Your task to perform on an android device: What's on my calendar today? Image 0: 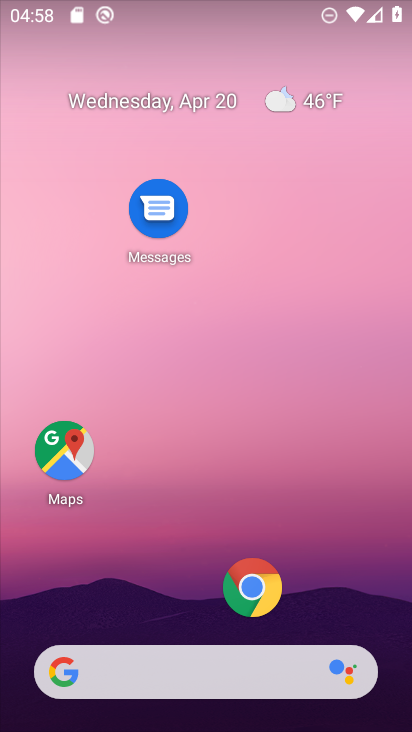
Step 0: drag from (196, 615) to (212, 125)
Your task to perform on an android device: What's on my calendar today? Image 1: 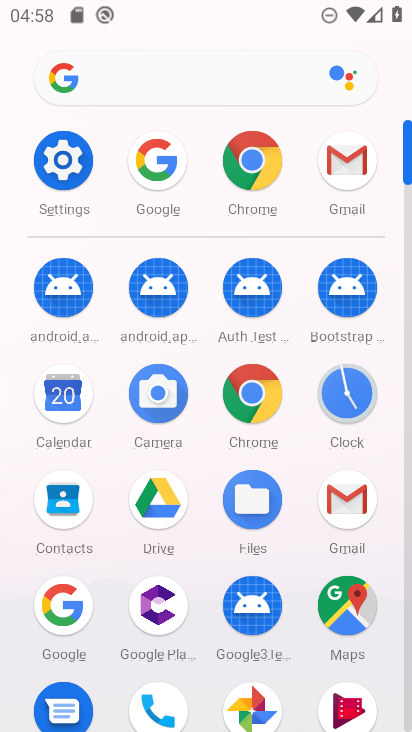
Step 1: click (56, 398)
Your task to perform on an android device: What's on my calendar today? Image 2: 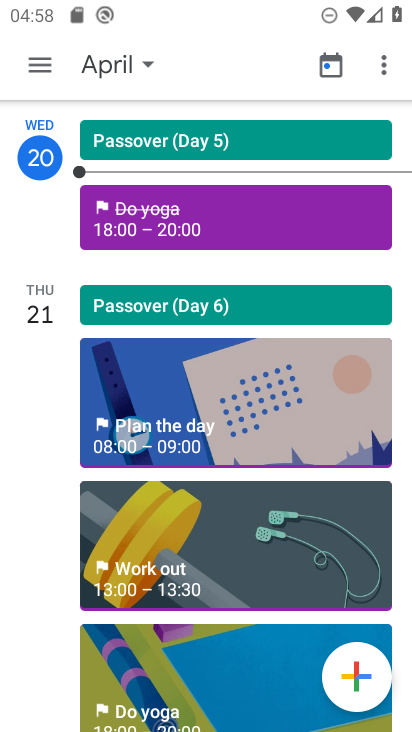
Step 2: click (116, 73)
Your task to perform on an android device: What's on my calendar today? Image 3: 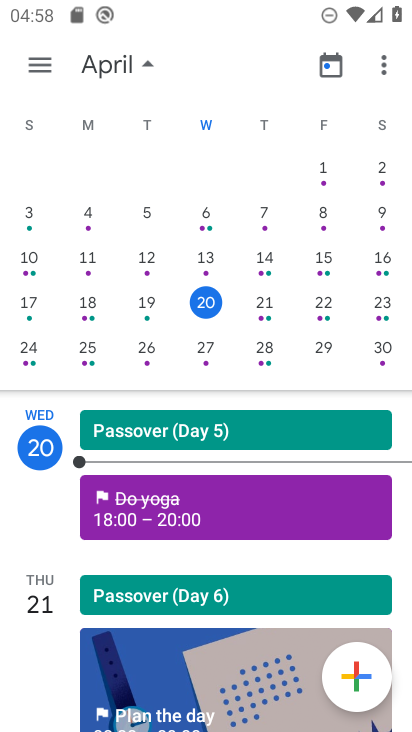
Step 3: click (214, 304)
Your task to perform on an android device: What's on my calendar today? Image 4: 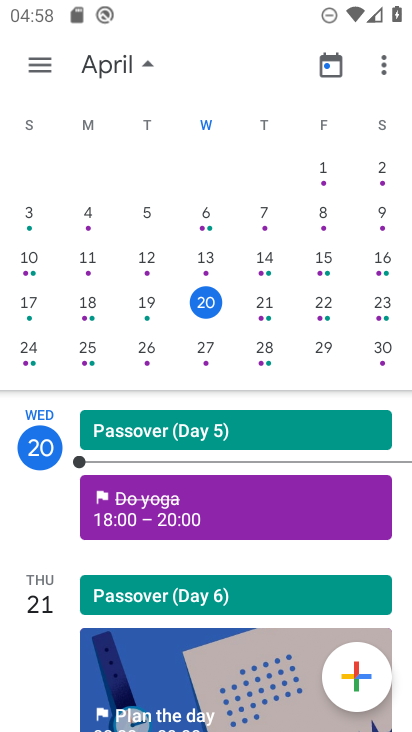
Step 4: task complete